Your task to perform on an android device: turn pop-ups on in chrome Image 0: 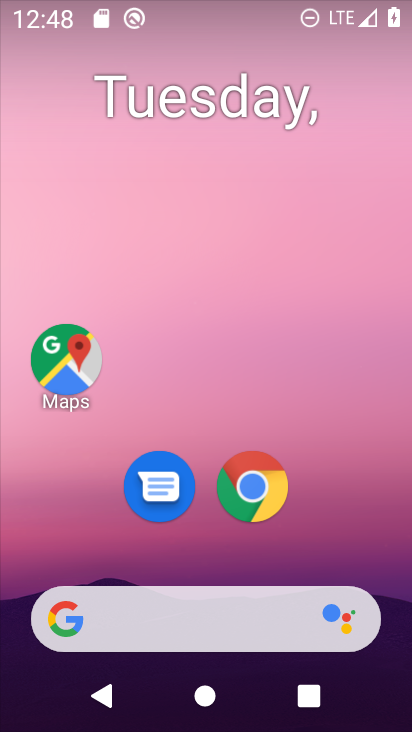
Step 0: drag from (240, 574) to (265, 207)
Your task to perform on an android device: turn pop-ups on in chrome Image 1: 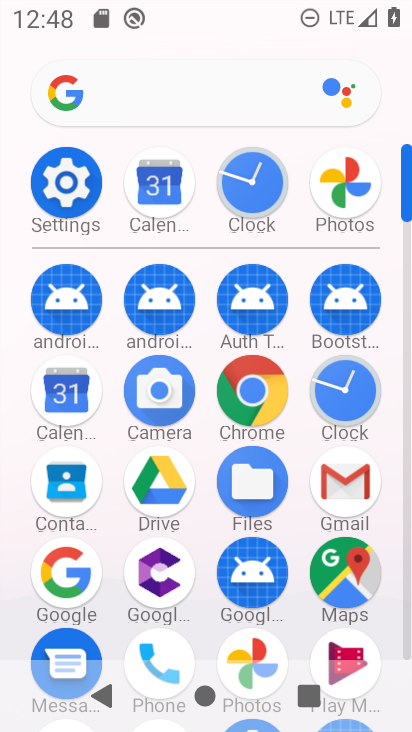
Step 1: click (243, 404)
Your task to perform on an android device: turn pop-ups on in chrome Image 2: 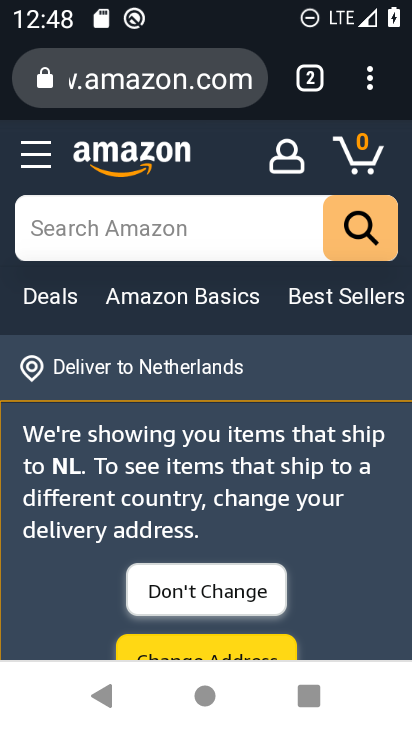
Step 2: click (379, 83)
Your task to perform on an android device: turn pop-ups on in chrome Image 3: 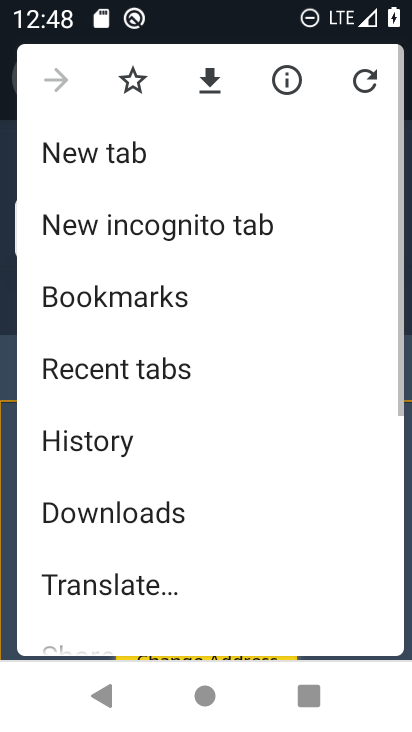
Step 3: drag from (182, 527) to (188, 223)
Your task to perform on an android device: turn pop-ups on in chrome Image 4: 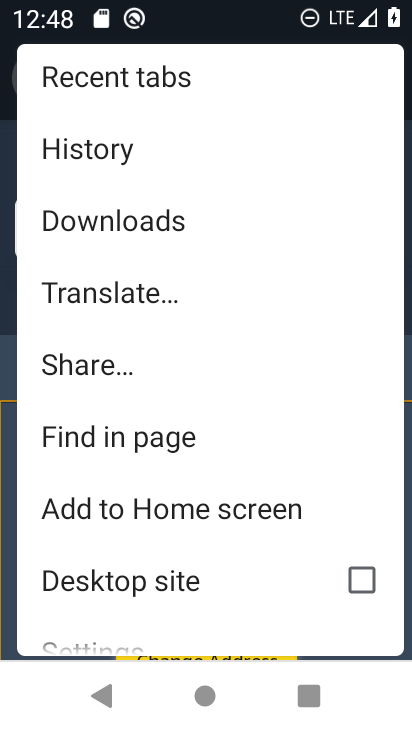
Step 4: drag from (121, 563) to (155, 306)
Your task to perform on an android device: turn pop-ups on in chrome Image 5: 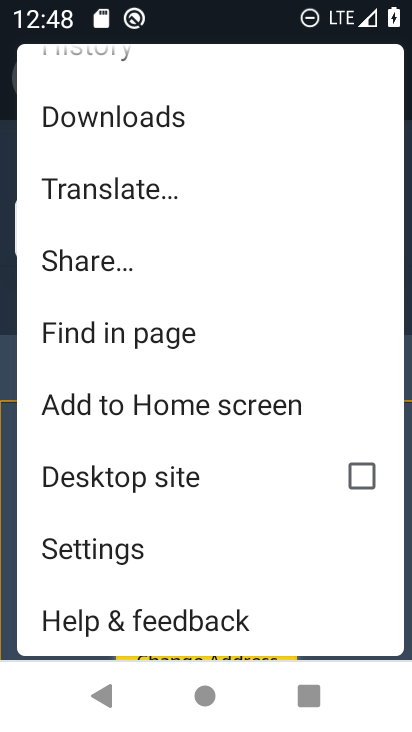
Step 5: click (127, 556)
Your task to perform on an android device: turn pop-ups on in chrome Image 6: 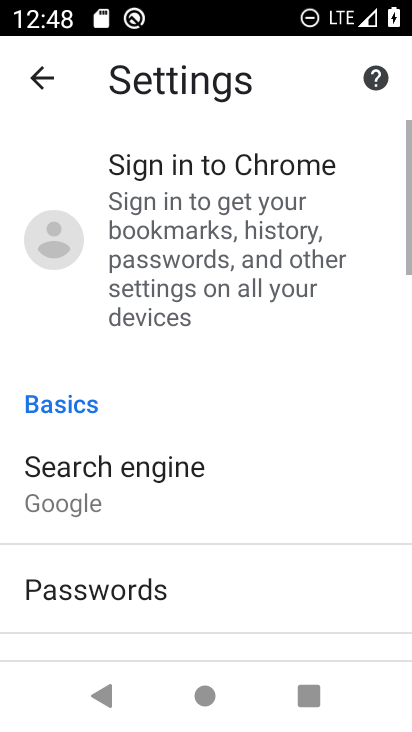
Step 6: drag from (140, 497) to (185, 264)
Your task to perform on an android device: turn pop-ups on in chrome Image 7: 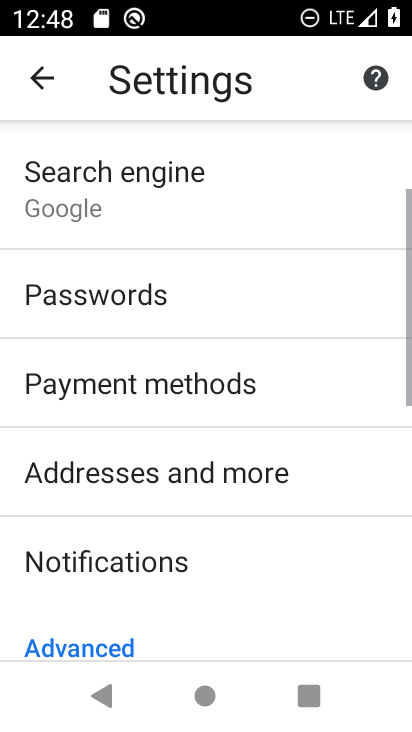
Step 7: drag from (207, 583) to (219, 297)
Your task to perform on an android device: turn pop-ups on in chrome Image 8: 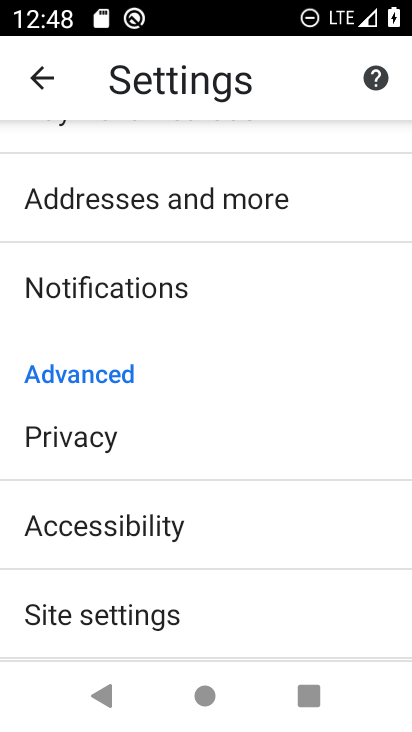
Step 8: click (157, 619)
Your task to perform on an android device: turn pop-ups on in chrome Image 9: 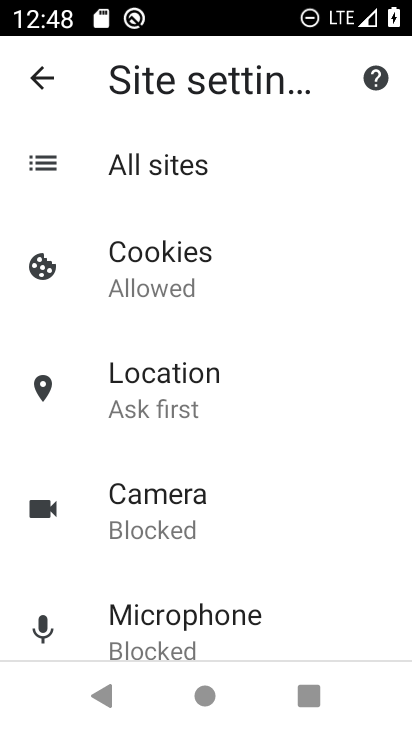
Step 9: drag from (192, 541) to (230, 180)
Your task to perform on an android device: turn pop-ups on in chrome Image 10: 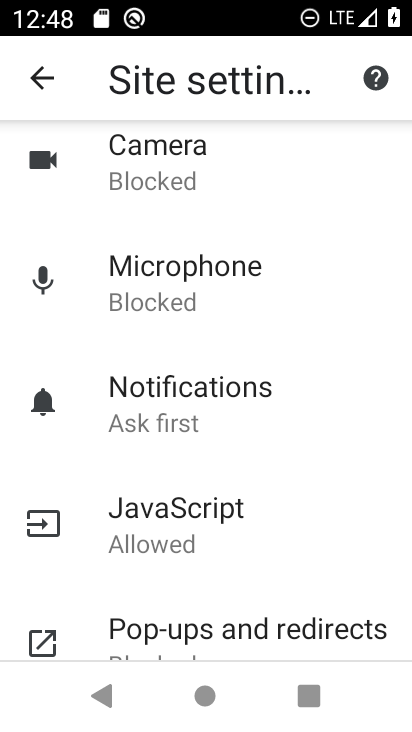
Step 10: drag from (197, 585) to (207, 317)
Your task to perform on an android device: turn pop-ups on in chrome Image 11: 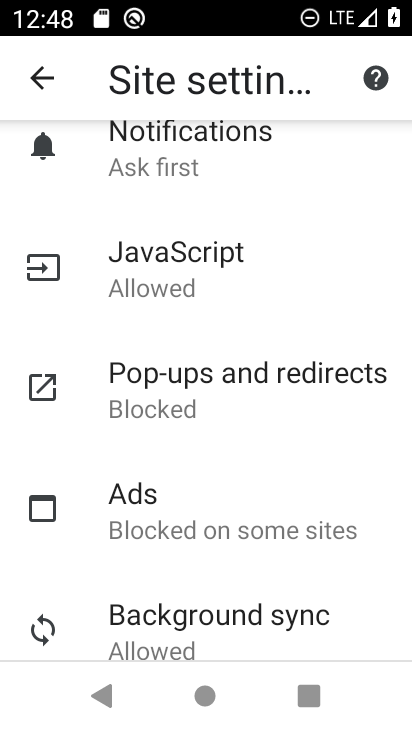
Step 11: click (202, 404)
Your task to perform on an android device: turn pop-ups on in chrome Image 12: 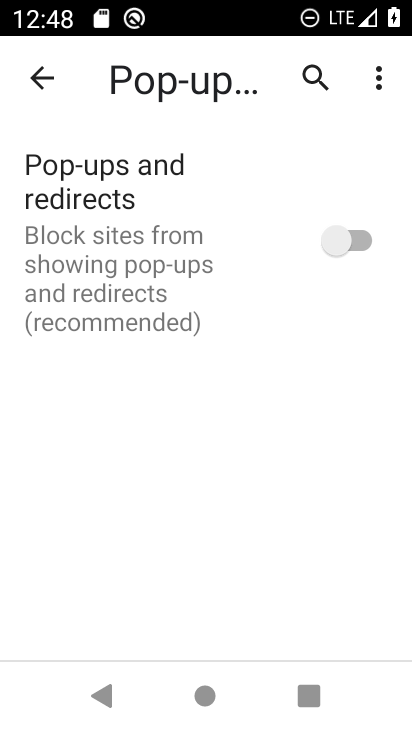
Step 12: click (332, 243)
Your task to perform on an android device: turn pop-ups on in chrome Image 13: 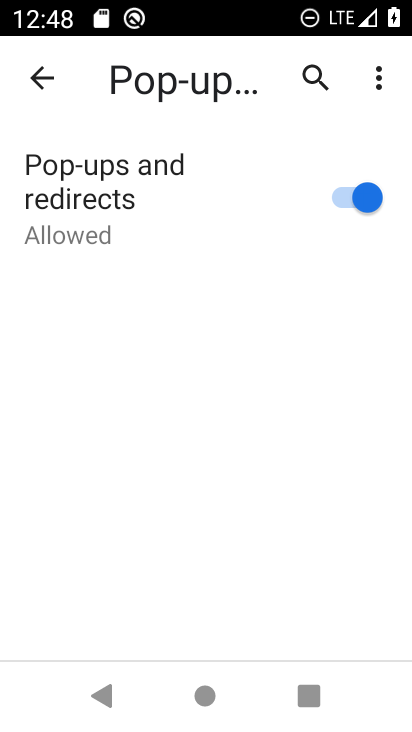
Step 13: task complete